Your task to perform on an android device: toggle data saver in the chrome app Image 0: 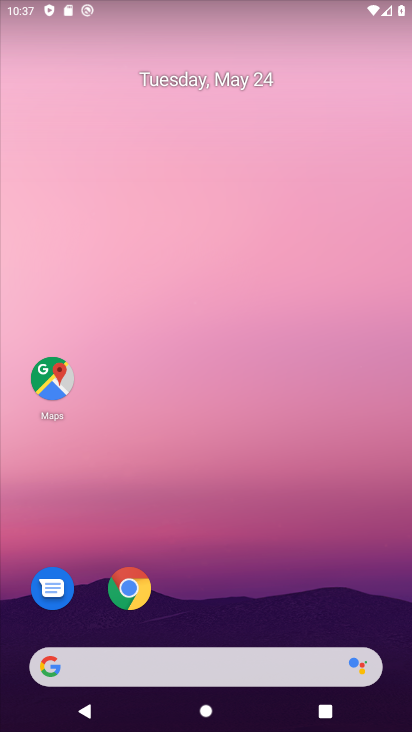
Step 0: click (133, 590)
Your task to perform on an android device: toggle data saver in the chrome app Image 1: 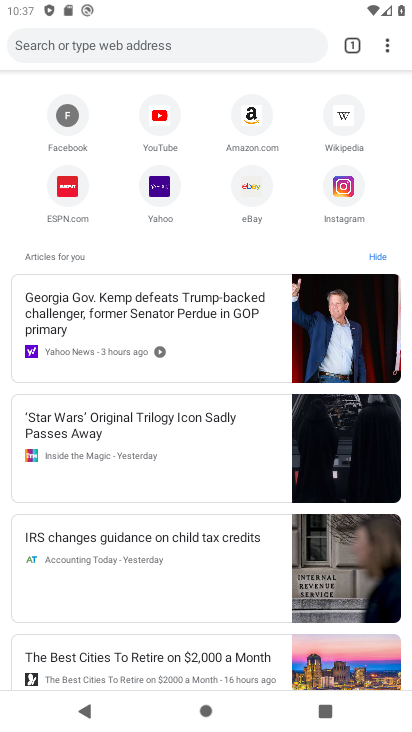
Step 1: click (397, 49)
Your task to perform on an android device: toggle data saver in the chrome app Image 2: 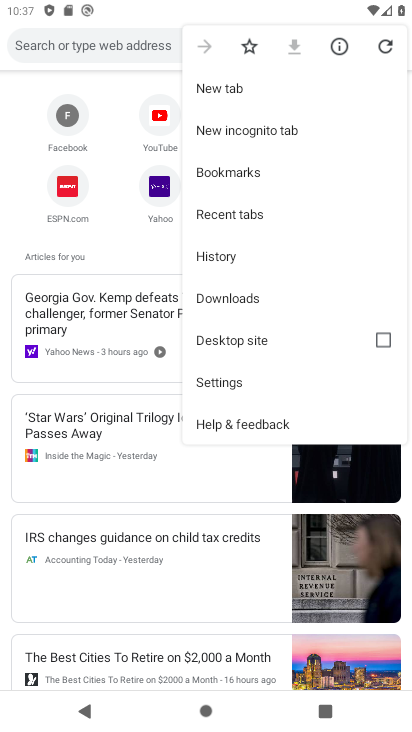
Step 2: click (251, 383)
Your task to perform on an android device: toggle data saver in the chrome app Image 3: 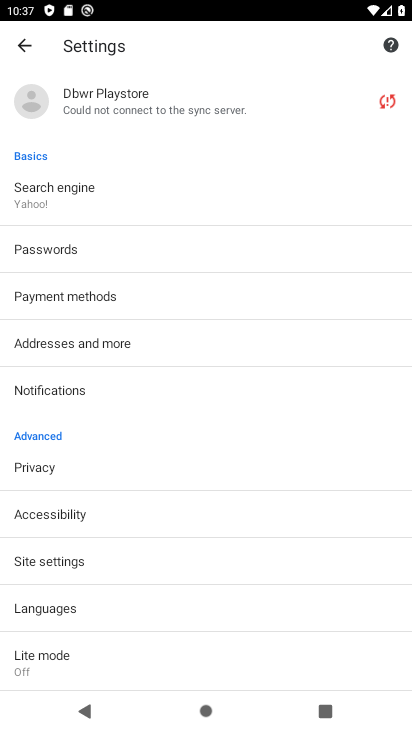
Step 3: click (80, 650)
Your task to perform on an android device: toggle data saver in the chrome app Image 4: 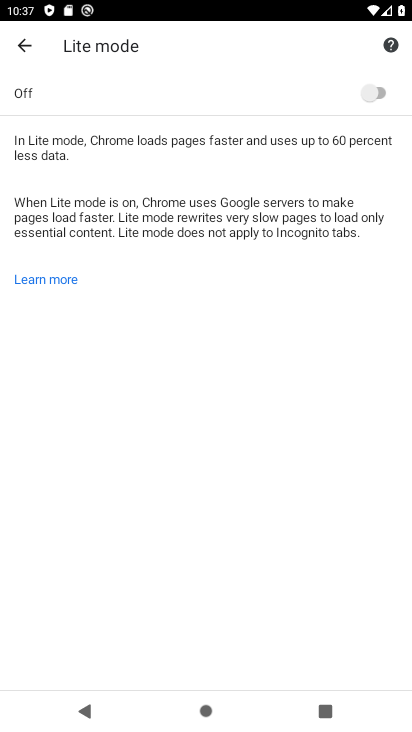
Step 4: click (386, 90)
Your task to perform on an android device: toggle data saver in the chrome app Image 5: 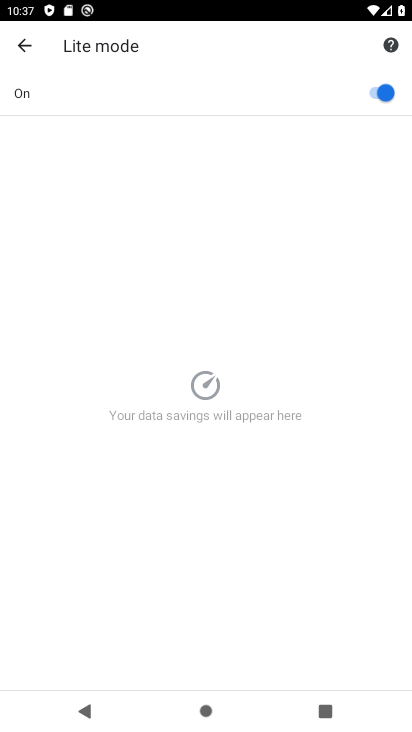
Step 5: task complete